Your task to perform on an android device: Open notification settings Image 0: 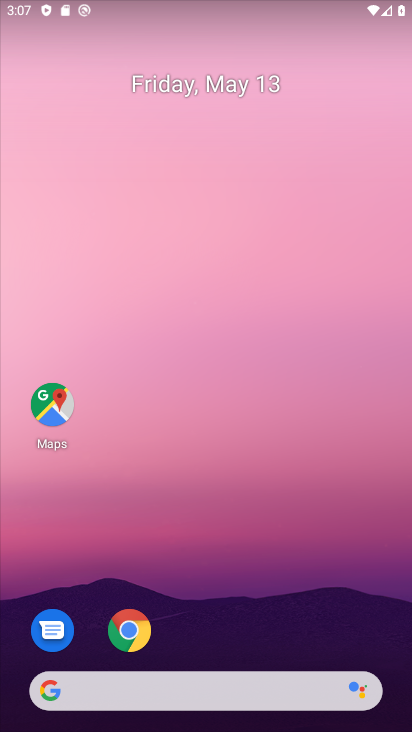
Step 0: drag from (218, 661) to (156, 86)
Your task to perform on an android device: Open notification settings Image 1: 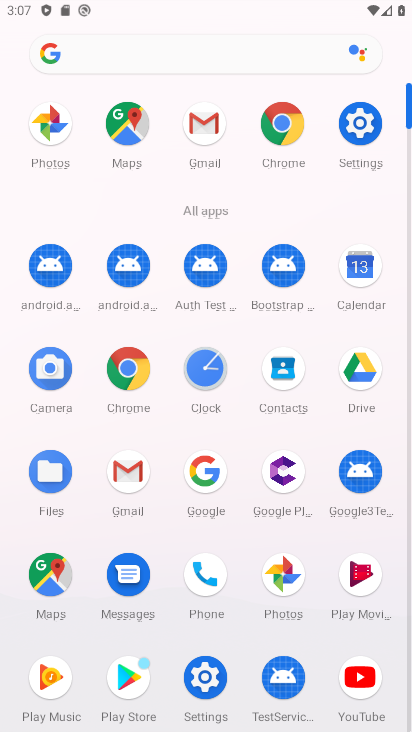
Step 1: click (347, 127)
Your task to perform on an android device: Open notification settings Image 2: 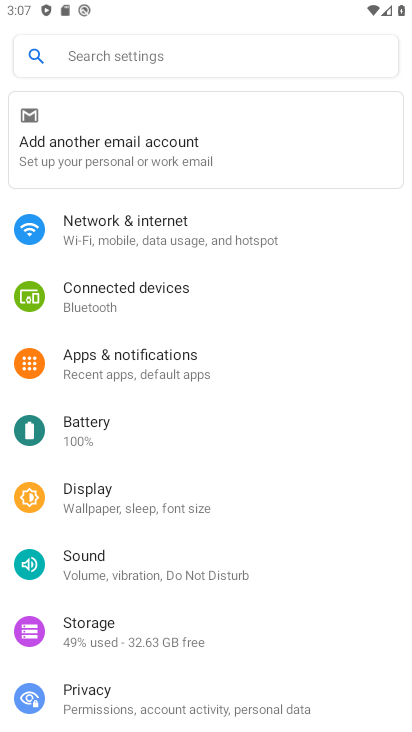
Step 2: click (165, 375)
Your task to perform on an android device: Open notification settings Image 3: 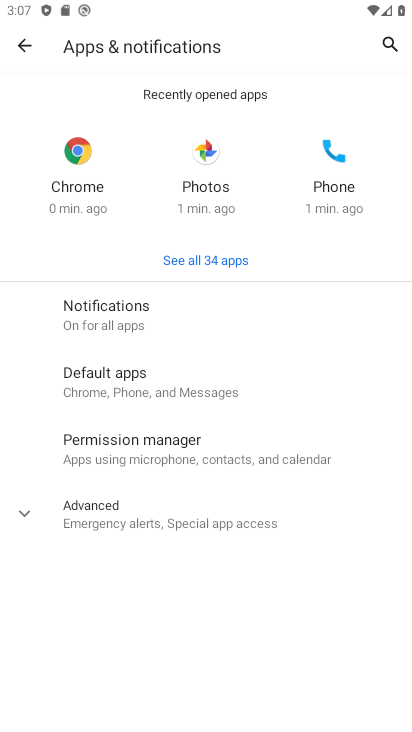
Step 3: click (132, 317)
Your task to perform on an android device: Open notification settings Image 4: 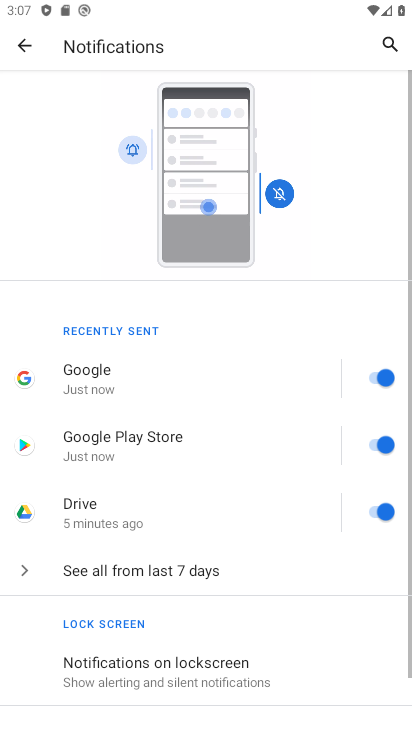
Step 4: task complete